Your task to perform on an android device: see sites visited before in the chrome app Image 0: 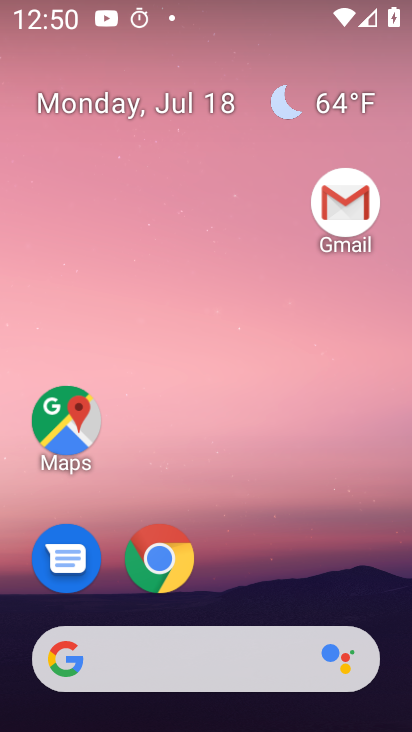
Step 0: press home button
Your task to perform on an android device: see sites visited before in the chrome app Image 1: 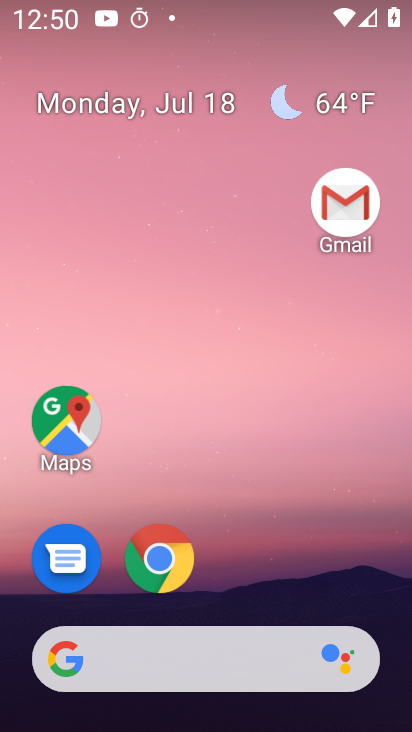
Step 1: drag from (353, 578) to (366, 91)
Your task to perform on an android device: see sites visited before in the chrome app Image 2: 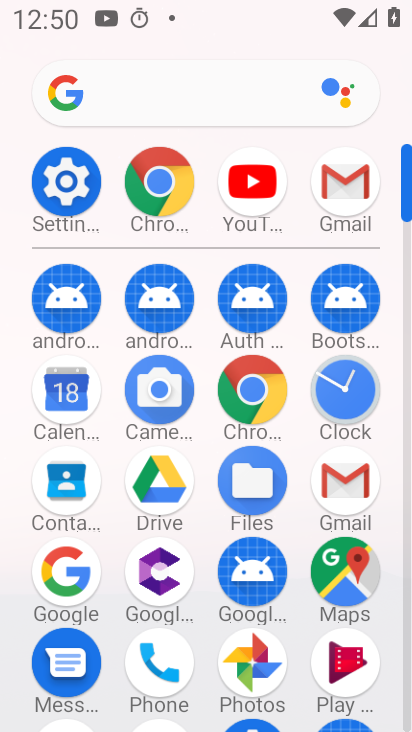
Step 2: click (267, 402)
Your task to perform on an android device: see sites visited before in the chrome app Image 3: 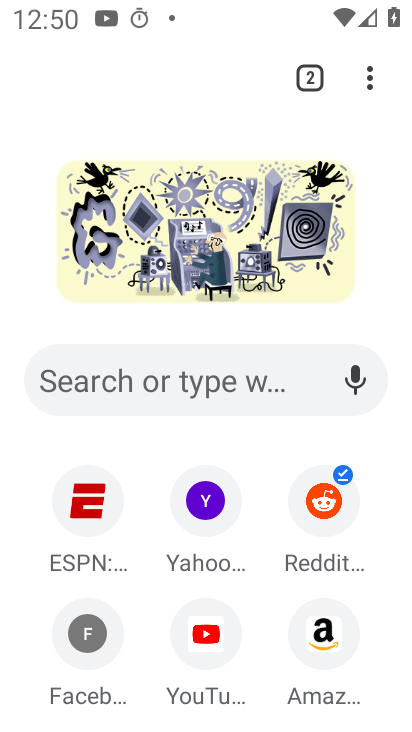
Step 3: click (372, 82)
Your task to perform on an android device: see sites visited before in the chrome app Image 4: 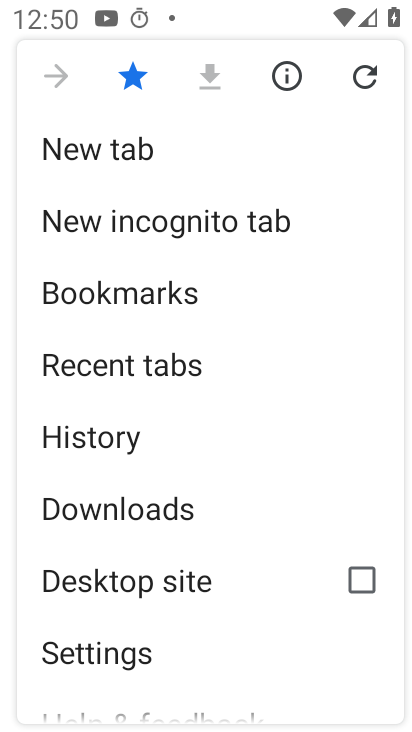
Step 4: click (180, 438)
Your task to perform on an android device: see sites visited before in the chrome app Image 5: 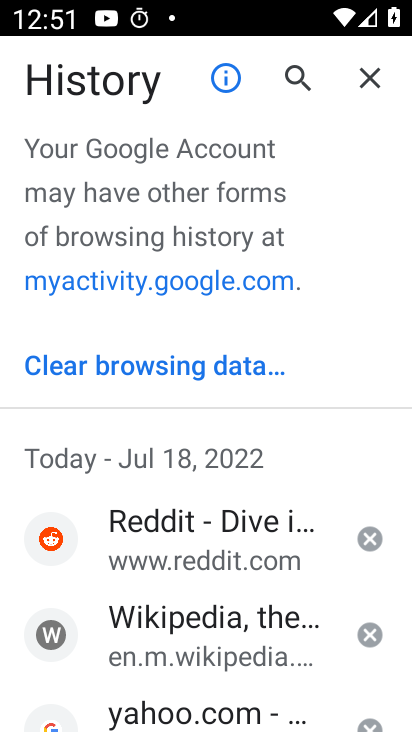
Step 5: task complete